Your task to perform on an android device: turn off wifi Image 0: 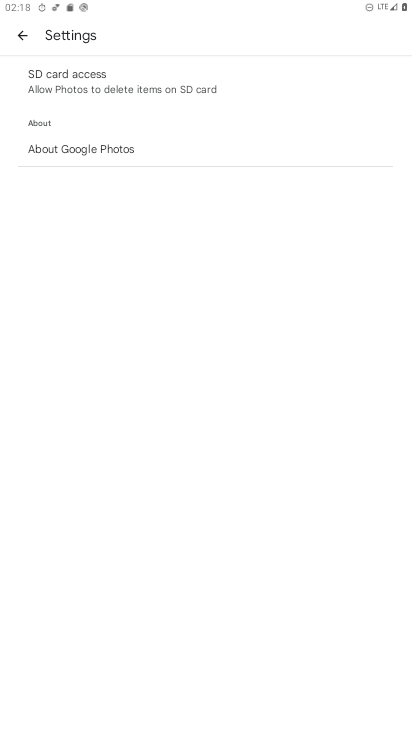
Step 0: press home button
Your task to perform on an android device: turn off wifi Image 1: 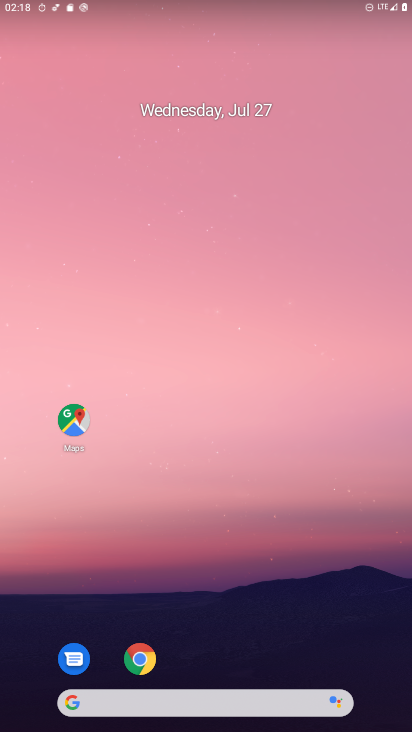
Step 1: drag from (337, 610) to (234, 303)
Your task to perform on an android device: turn off wifi Image 2: 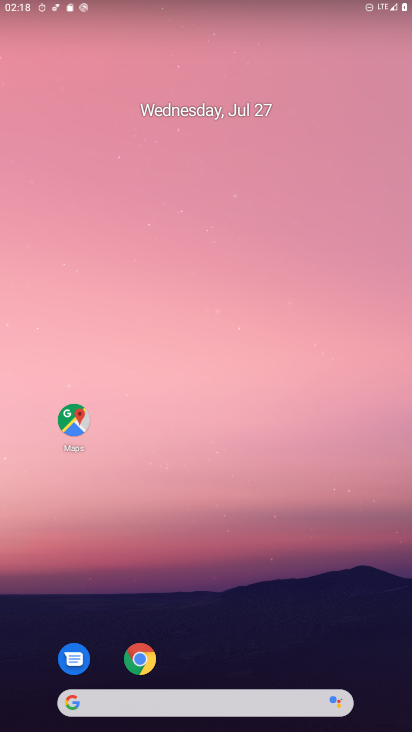
Step 2: drag from (270, 616) to (102, 80)
Your task to perform on an android device: turn off wifi Image 3: 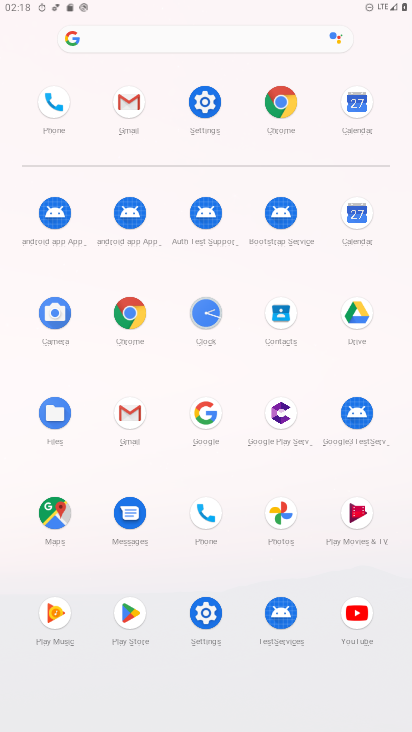
Step 3: click (204, 98)
Your task to perform on an android device: turn off wifi Image 4: 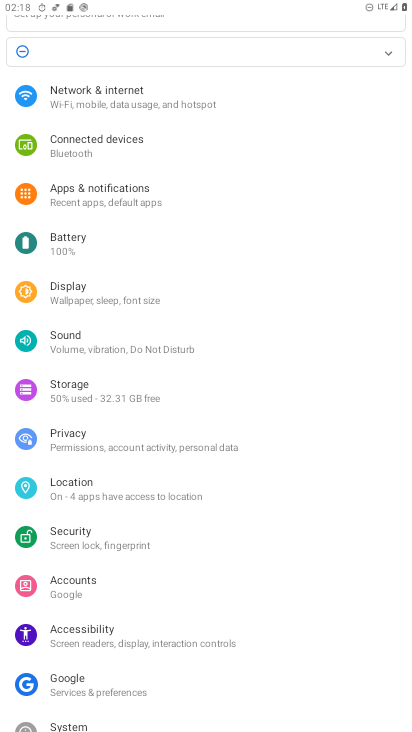
Step 4: click (160, 95)
Your task to perform on an android device: turn off wifi Image 5: 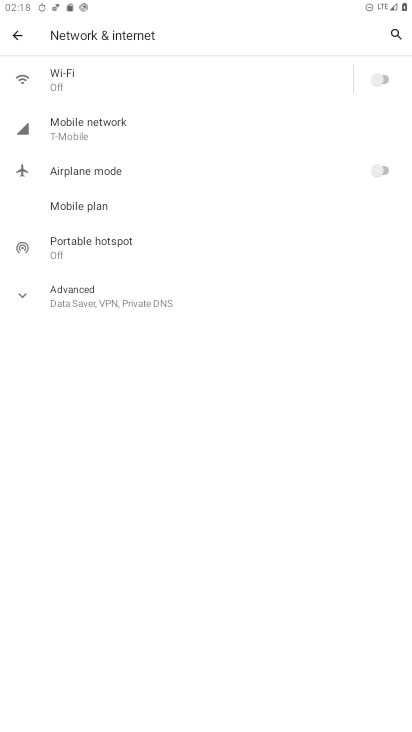
Step 5: click (98, 74)
Your task to perform on an android device: turn off wifi Image 6: 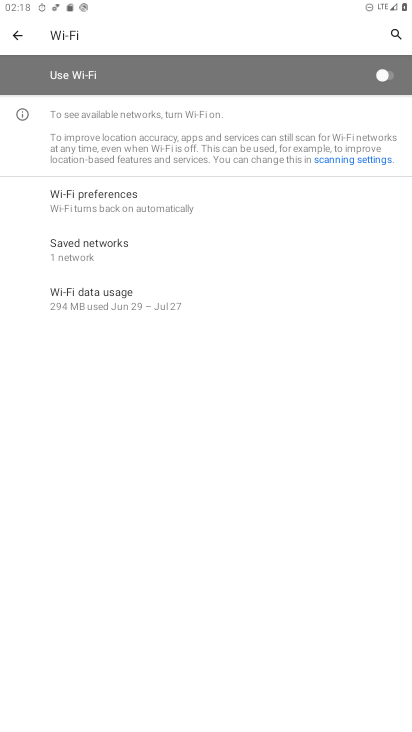
Step 6: task complete